Your task to perform on an android device: move an email to a new category in the gmail app Image 0: 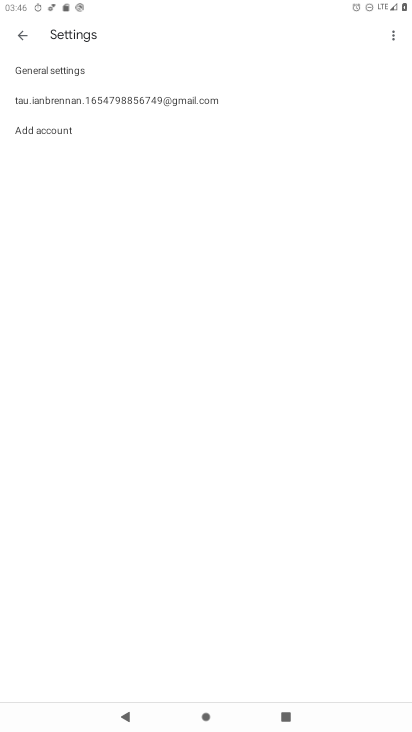
Step 0: press home button
Your task to perform on an android device: move an email to a new category in the gmail app Image 1: 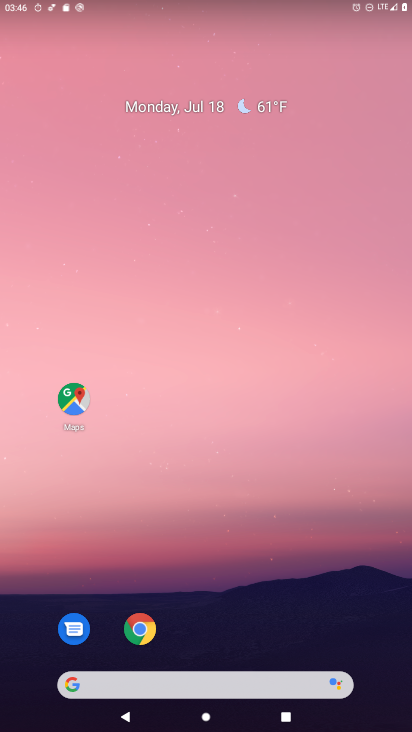
Step 1: drag from (197, 688) to (236, 170)
Your task to perform on an android device: move an email to a new category in the gmail app Image 2: 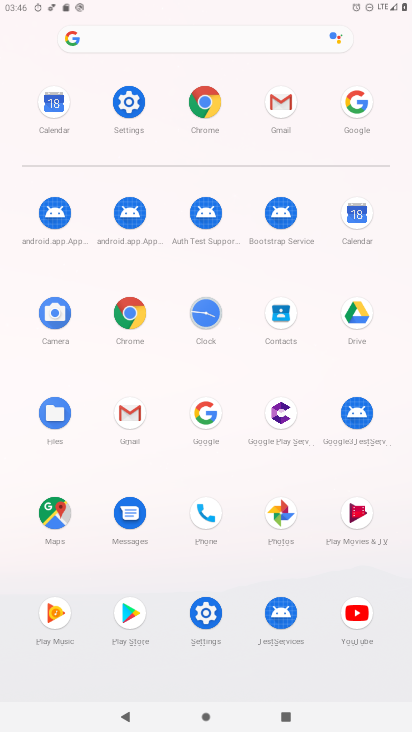
Step 2: click (281, 101)
Your task to perform on an android device: move an email to a new category in the gmail app Image 3: 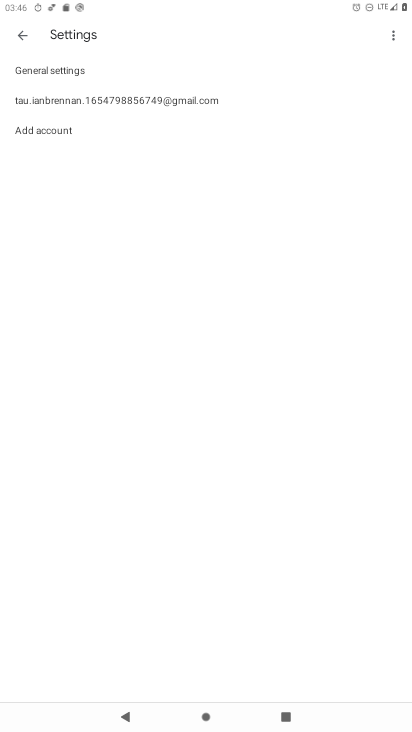
Step 3: press back button
Your task to perform on an android device: move an email to a new category in the gmail app Image 4: 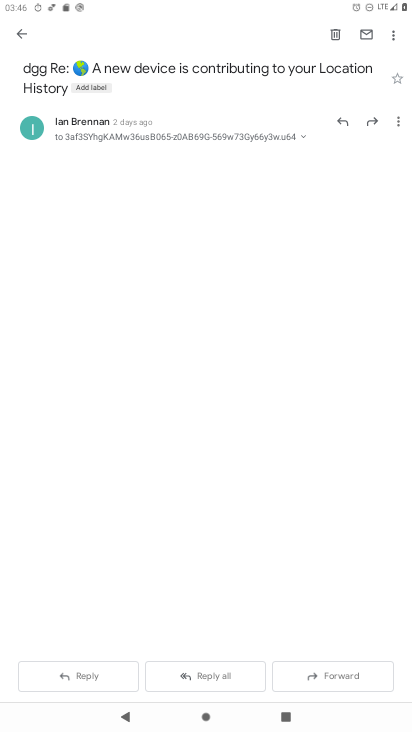
Step 4: press back button
Your task to perform on an android device: move an email to a new category in the gmail app Image 5: 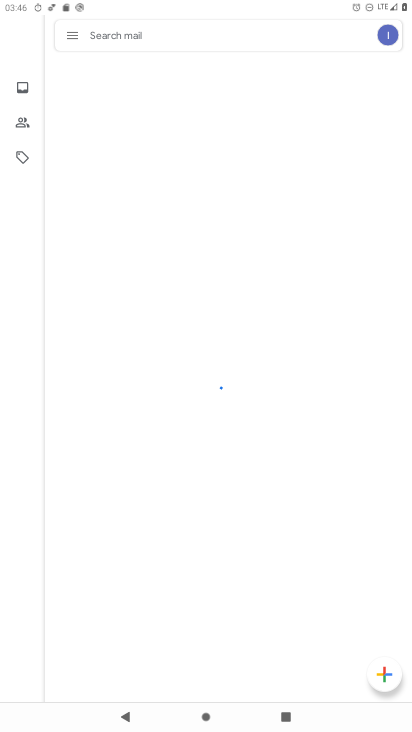
Step 5: click (16, 96)
Your task to perform on an android device: move an email to a new category in the gmail app Image 6: 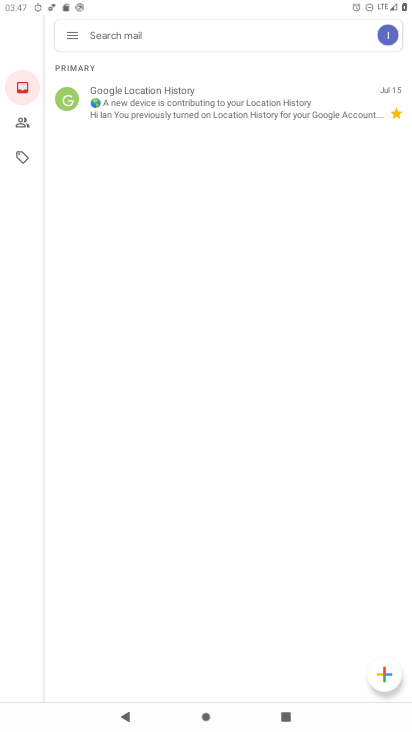
Step 6: click (192, 119)
Your task to perform on an android device: move an email to a new category in the gmail app Image 7: 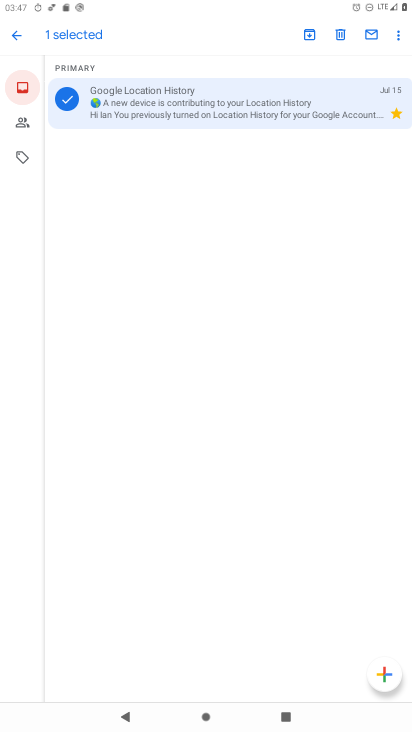
Step 7: click (403, 33)
Your task to perform on an android device: move an email to a new category in the gmail app Image 8: 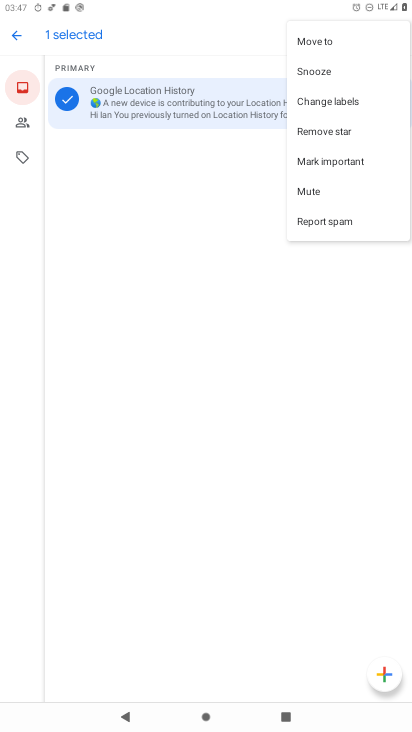
Step 8: click (327, 49)
Your task to perform on an android device: move an email to a new category in the gmail app Image 9: 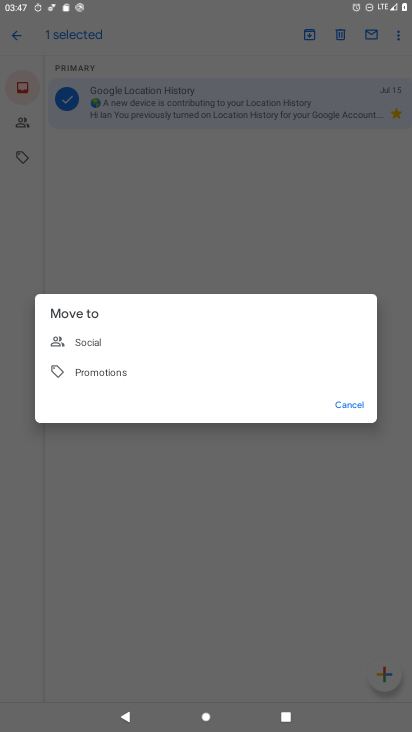
Step 9: click (98, 346)
Your task to perform on an android device: move an email to a new category in the gmail app Image 10: 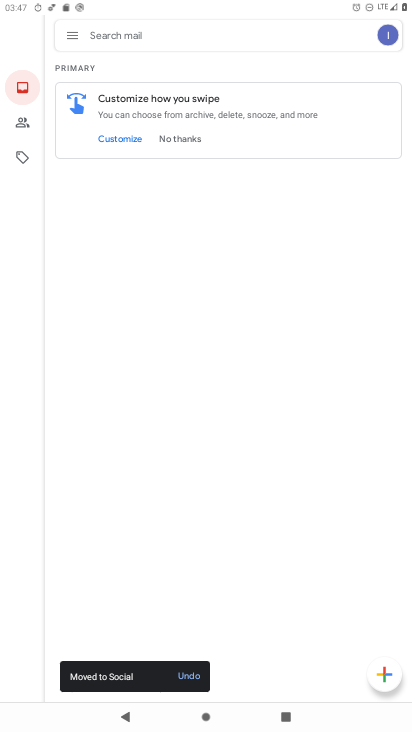
Step 10: task complete